Your task to perform on an android device: Show me the alarms in the clock app Image 0: 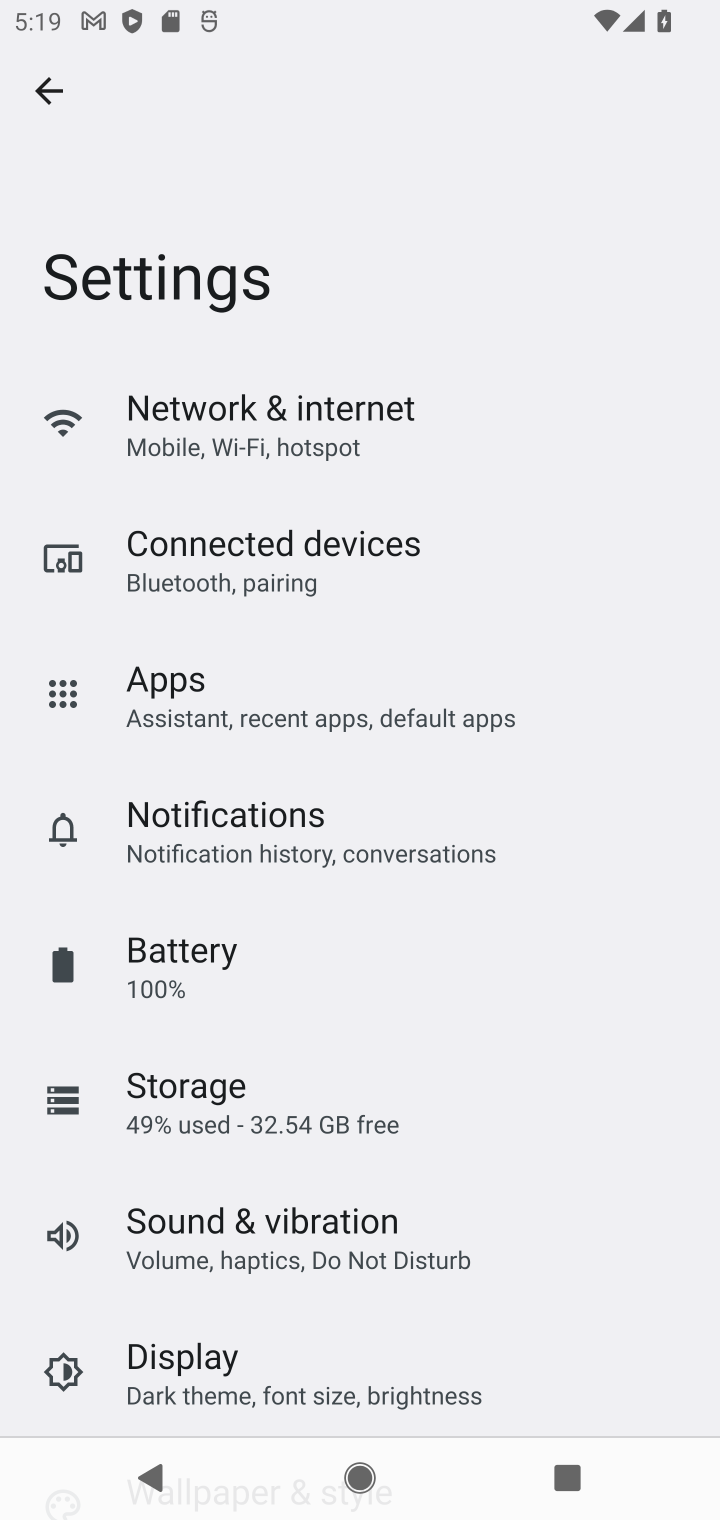
Step 0: press home button
Your task to perform on an android device: Show me the alarms in the clock app Image 1: 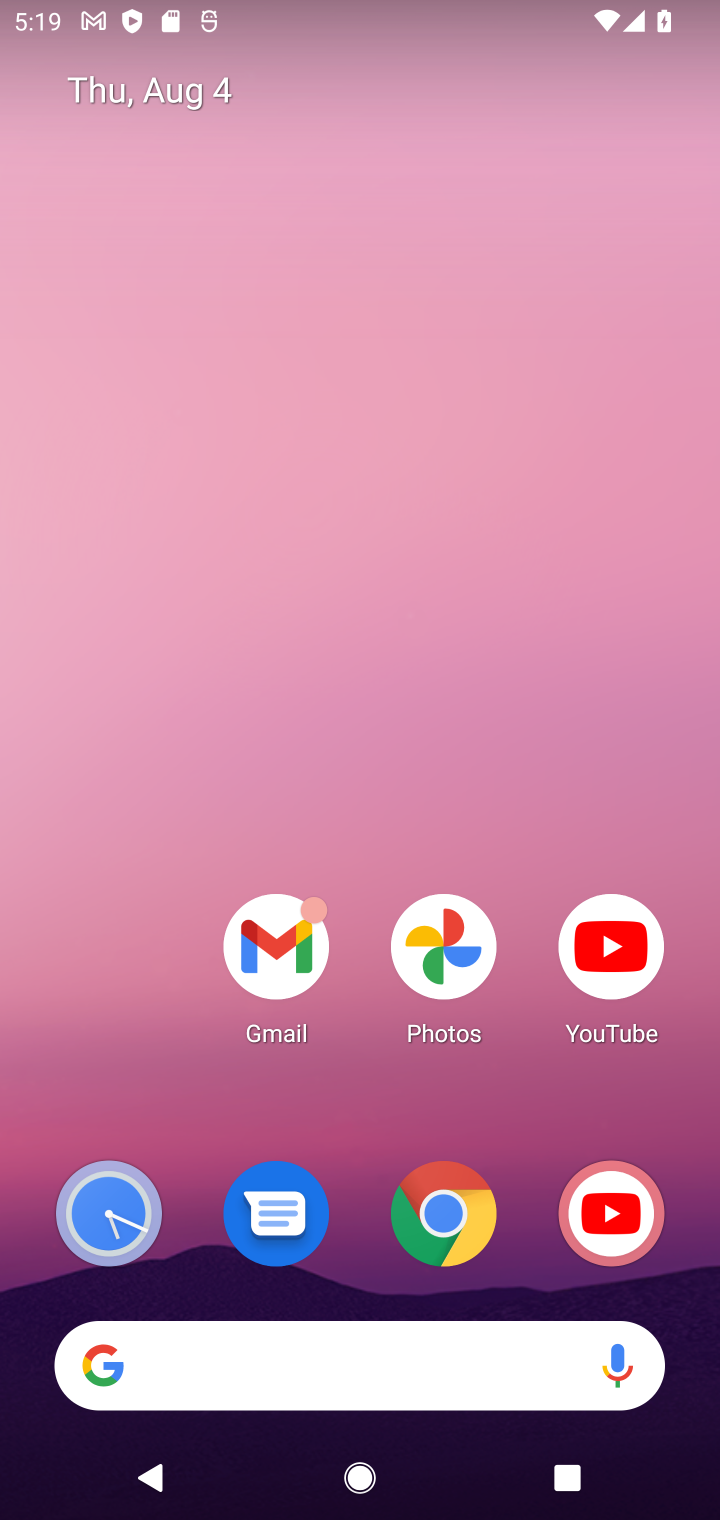
Step 1: click (94, 1220)
Your task to perform on an android device: Show me the alarms in the clock app Image 2: 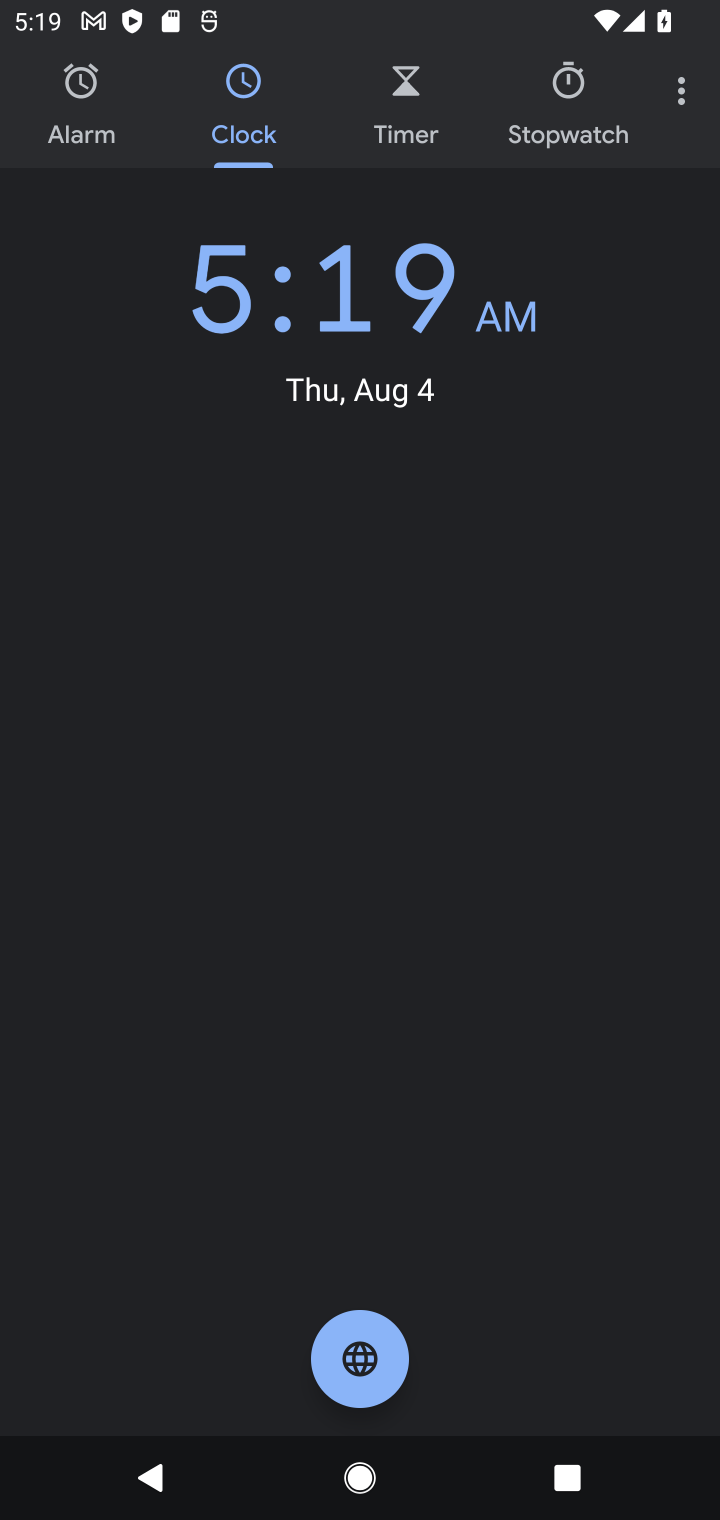
Step 2: click (83, 120)
Your task to perform on an android device: Show me the alarms in the clock app Image 3: 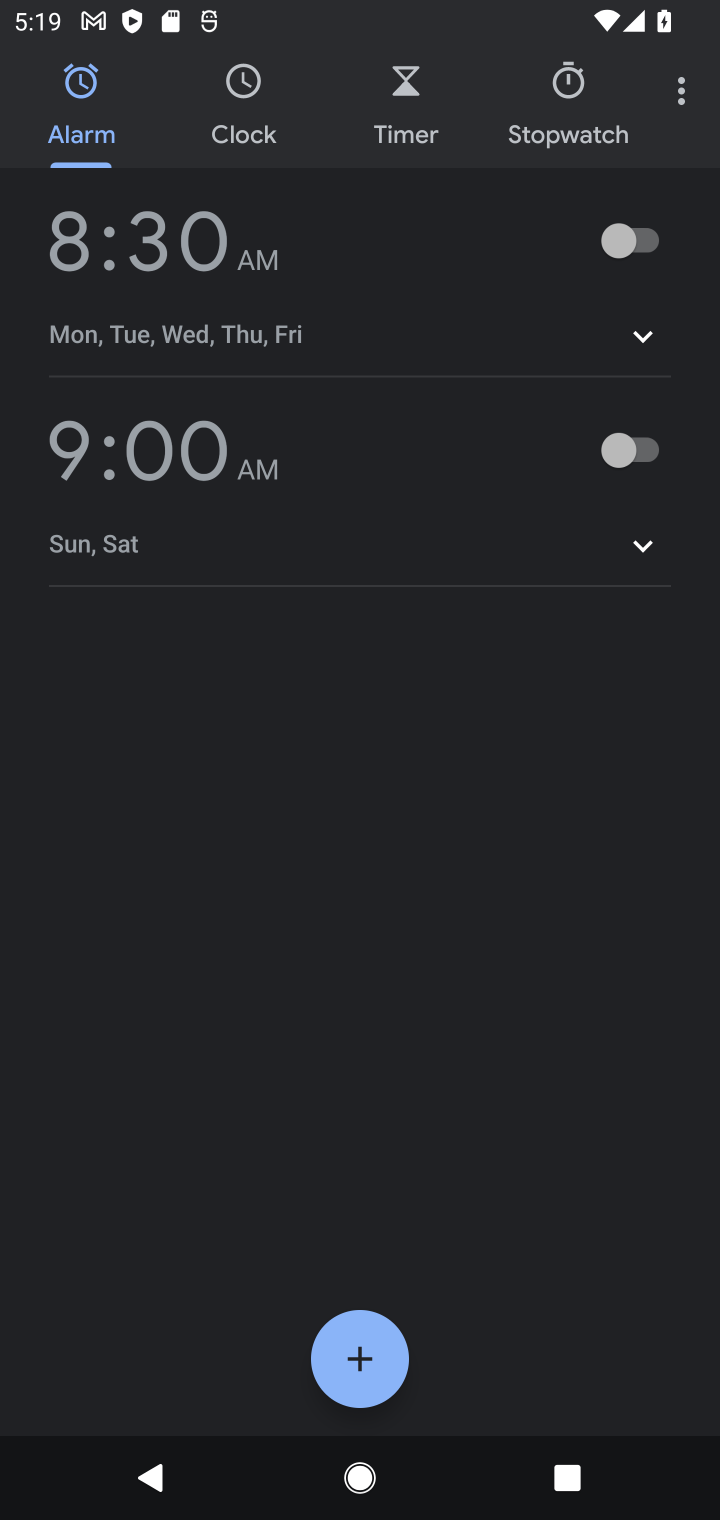
Step 3: task complete